Your task to perform on an android device: When is my next meeting? Image 0: 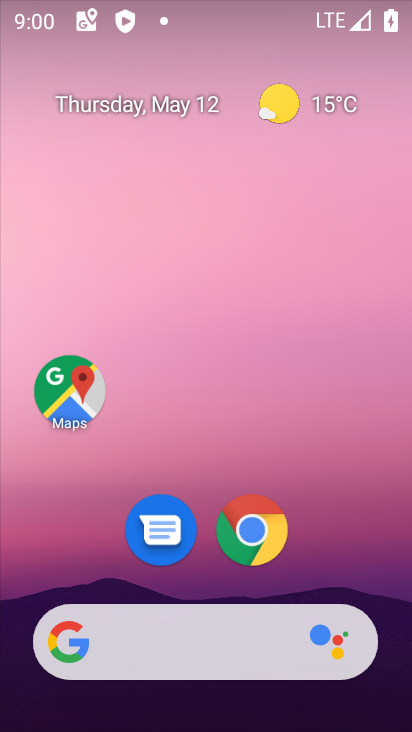
Step 0: drag from (226, 700) to (314, 82)
Your task to perform on an android device: When is my next meeting? Image 1: 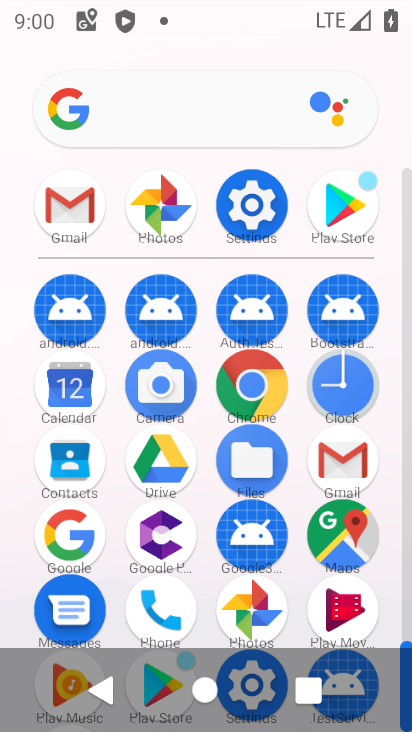
Step 1: click (53, 385)
Your task to perform on an android device: When is my next meeting? Image 2: 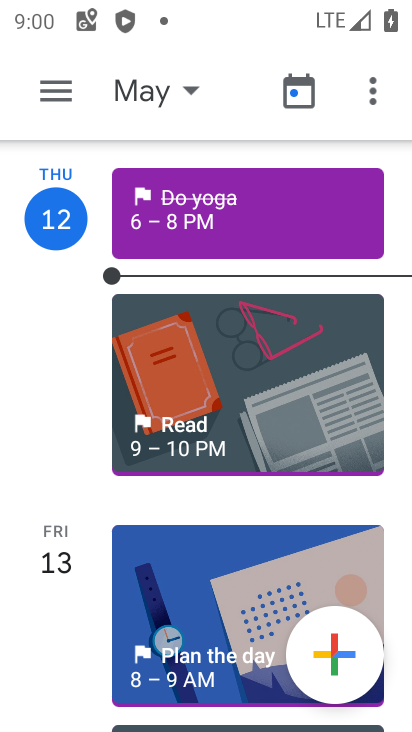
Step 2: click (65, 89)
Your task to perform on an android device: When is my next meeting? Image 3: 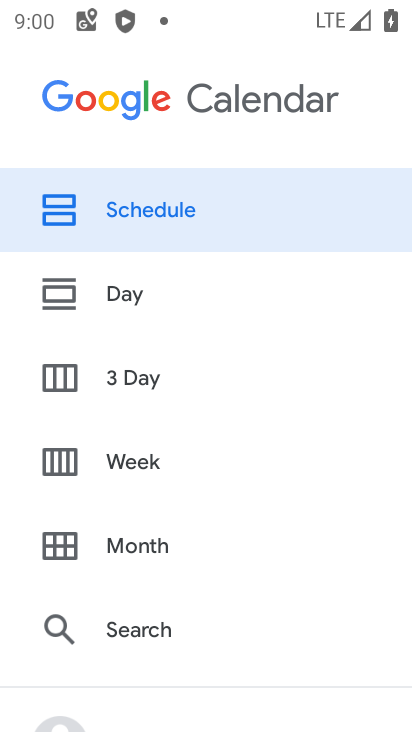
Step 3: click (149, 214)
Your task to perform on an android device: When is my next meeting? Image 4: 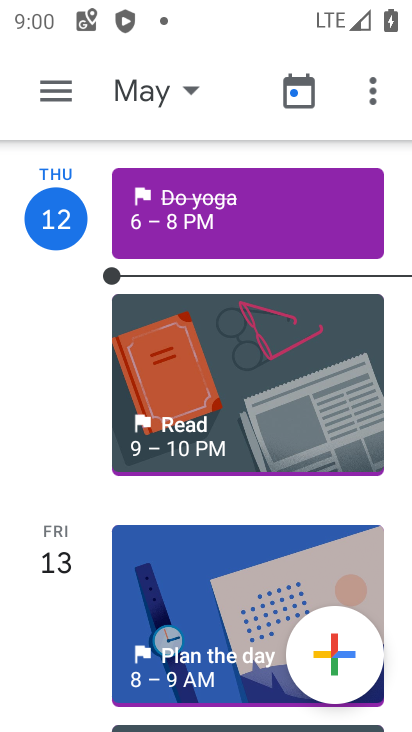
Step 4: task complete